Your task to perform on an android device: change the clock style Image 0: 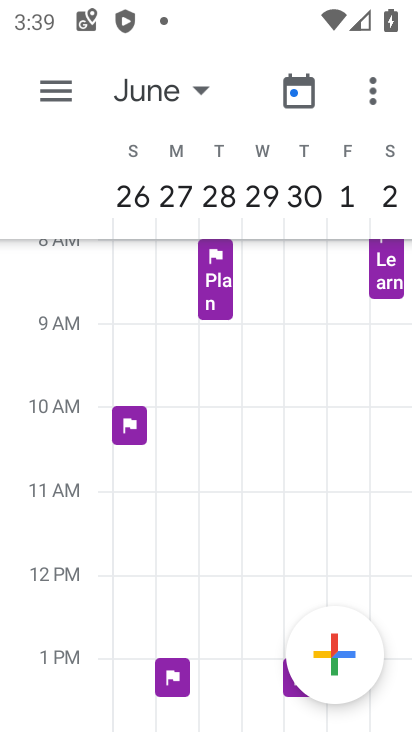
Step 0: press home button
Your task to perform on an android device: change the clock style Image 1: 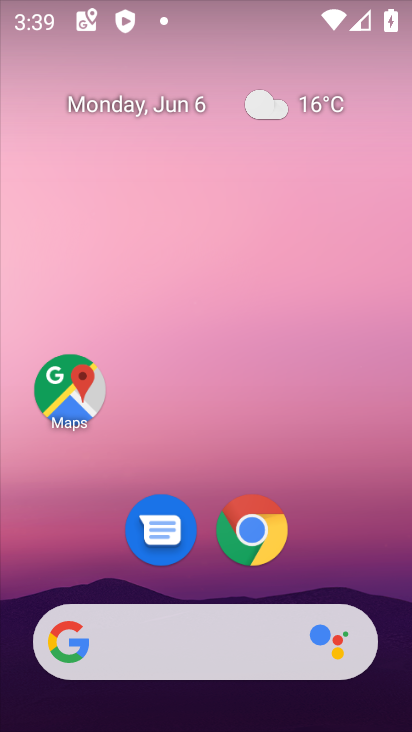
Step 1: drag from (349, 574) to (307, 91)
Your task to perform on an android device: change the clock style Image 2: 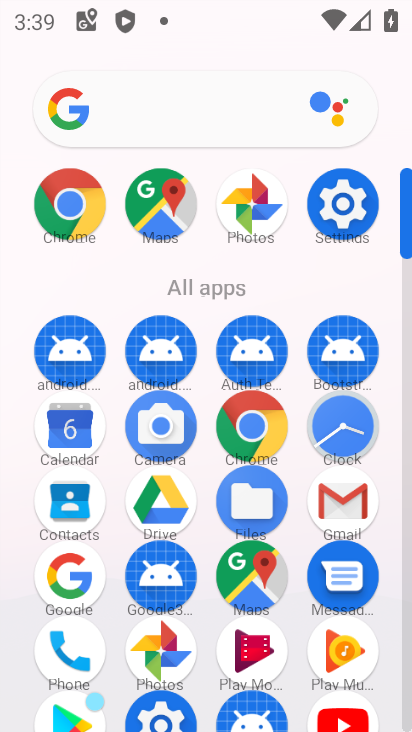
Step 2: click (331, 431)
Your task to perform on an android device: change the clock style Image 3: 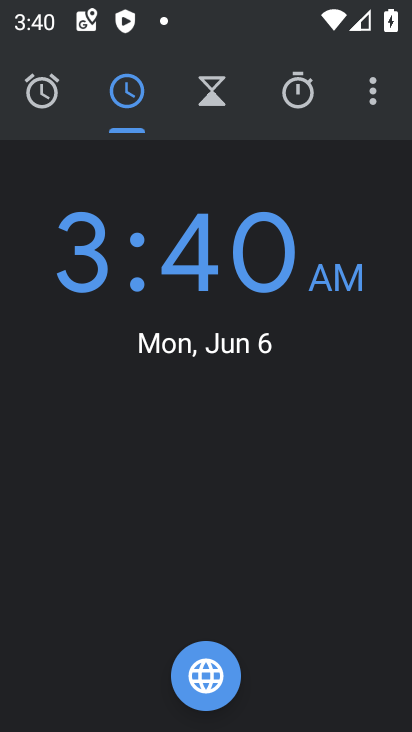
Step 3: click (378, 80)
Your task to perform on an android device: change the clock style Image 4: 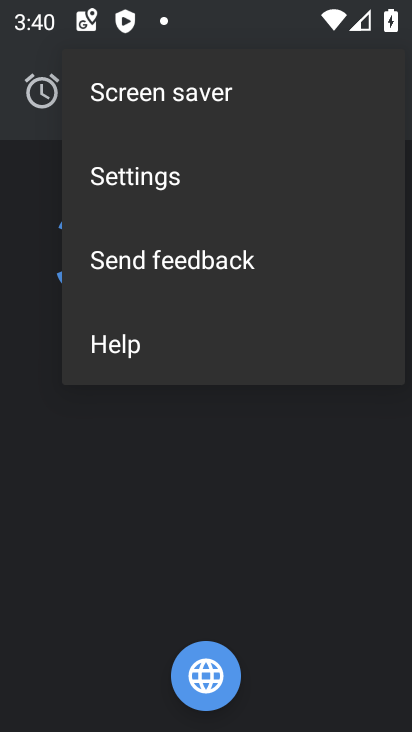
Step 4: click (287, 158)
Your task to perform on an android device: change the clock style Image 5: 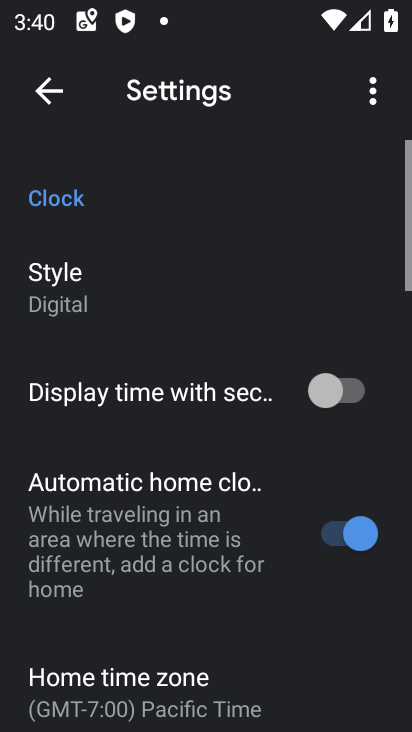
Step 5: click (68, 299)
Your task to perform on an android device: change the clock style Image 6: 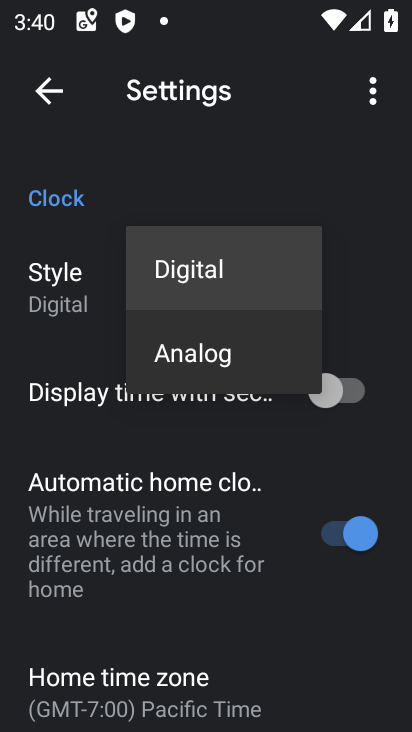
Step 6: click (225, 367)
Your task to perform on an android device: change the clock style Image 7: 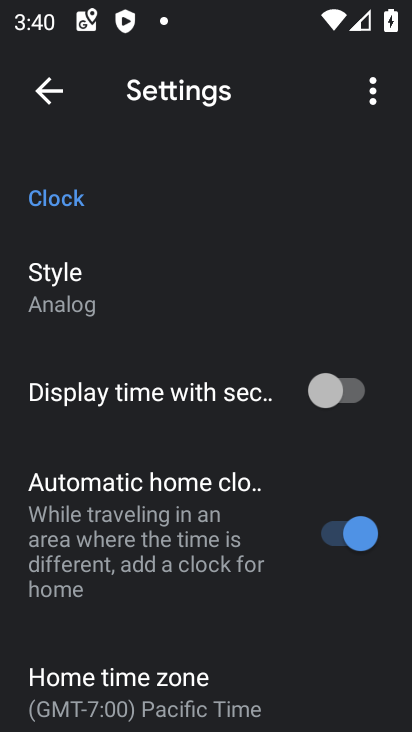
Step 7: task complete